Your task to perform on an android device: Go to settings Image 0: 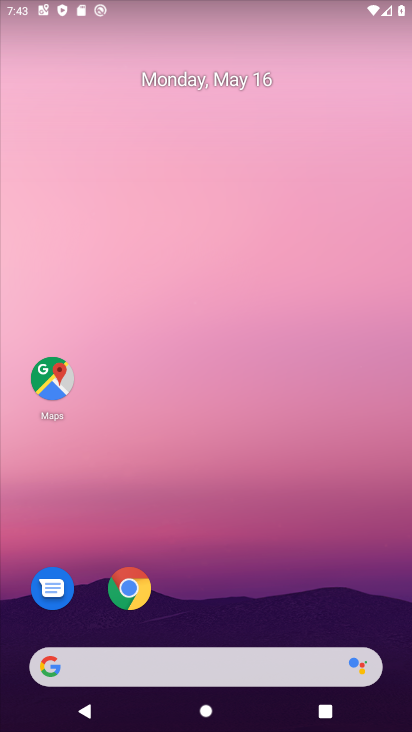
Step 0: drag from (245, 586) to (245, 221)
Your task to perform on an android device: Go to settings Image 1: 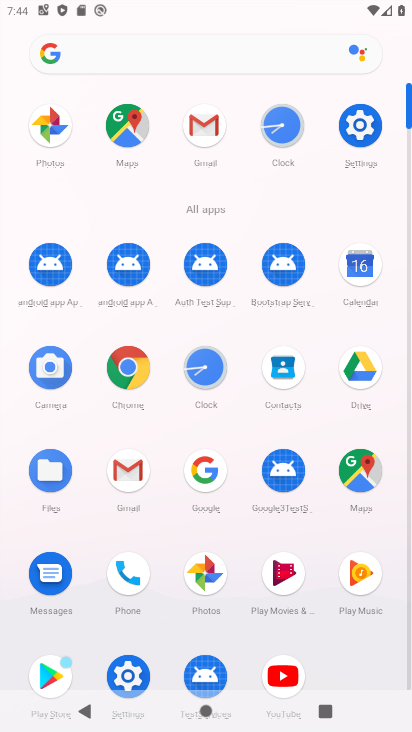
Step 1: click (359, 126)
Your task to perform on an android device: Go to settings Image 2: 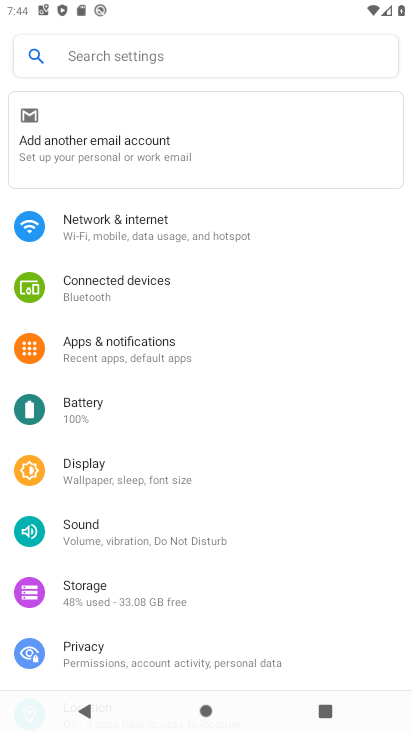
Step 2: task complete